Your task to perform on an android device: What's the weather going to be tomorrow? Image 0: 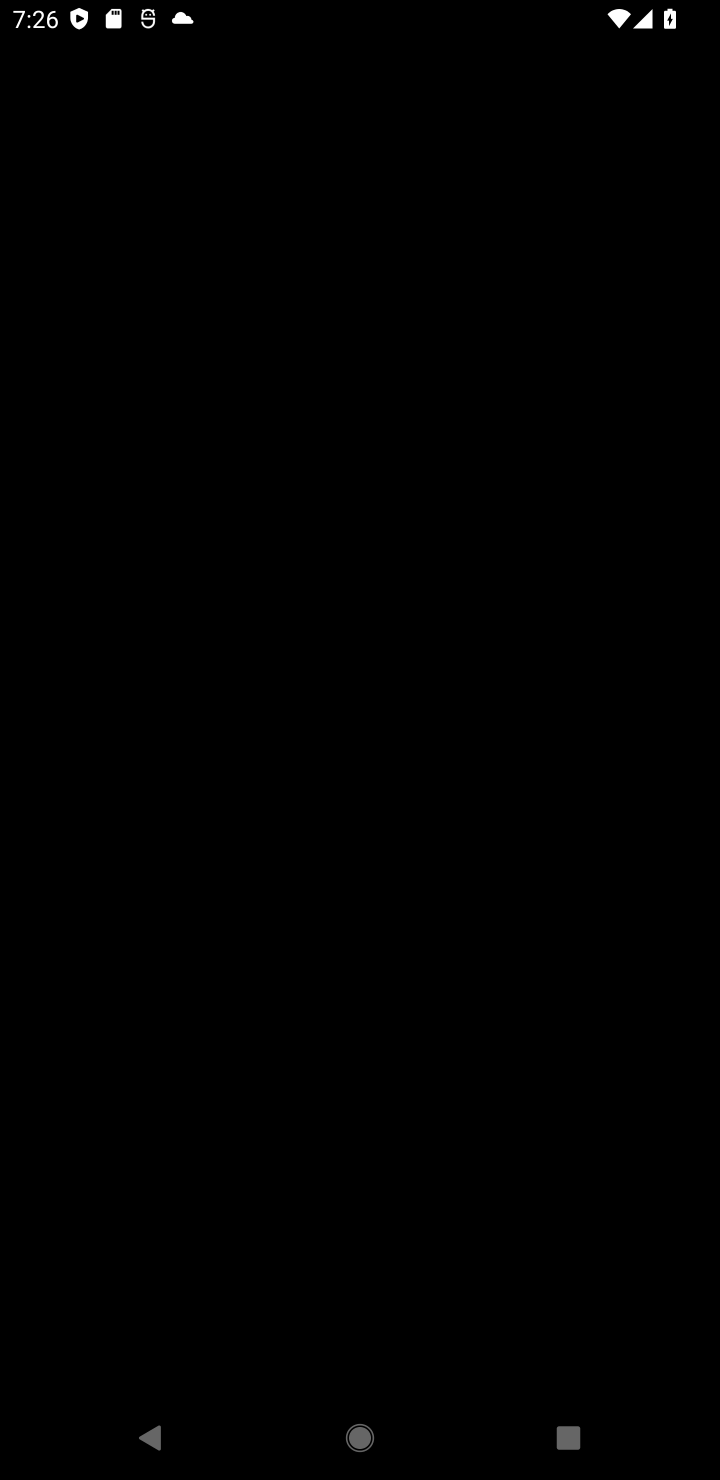
Step 0: press home button
Your task to perform on an android device: What's the weather going to be tomorrow? Image 1: 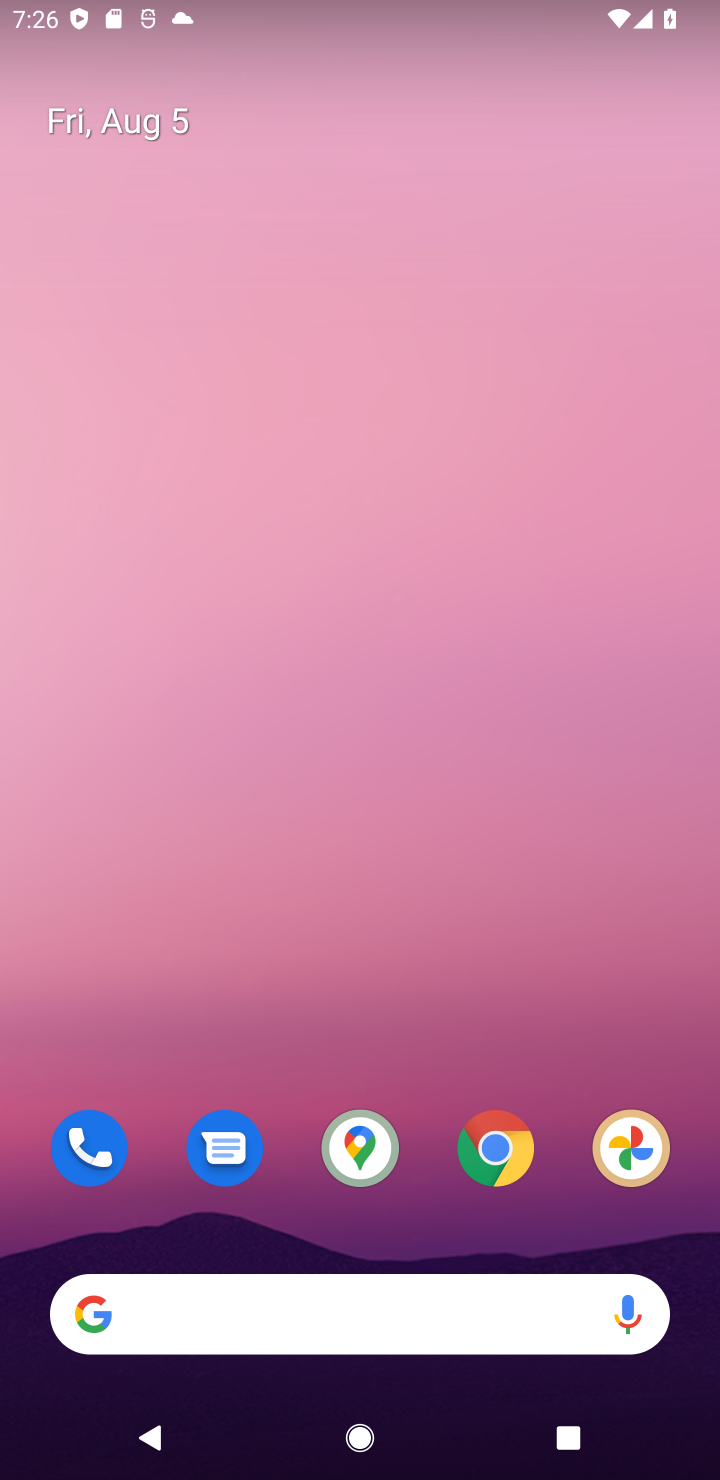
Step 1: drag from (290, 987) to (340, 251)
Your task to perform on an android device: What's the weather going to be tomorrow? Image 2: 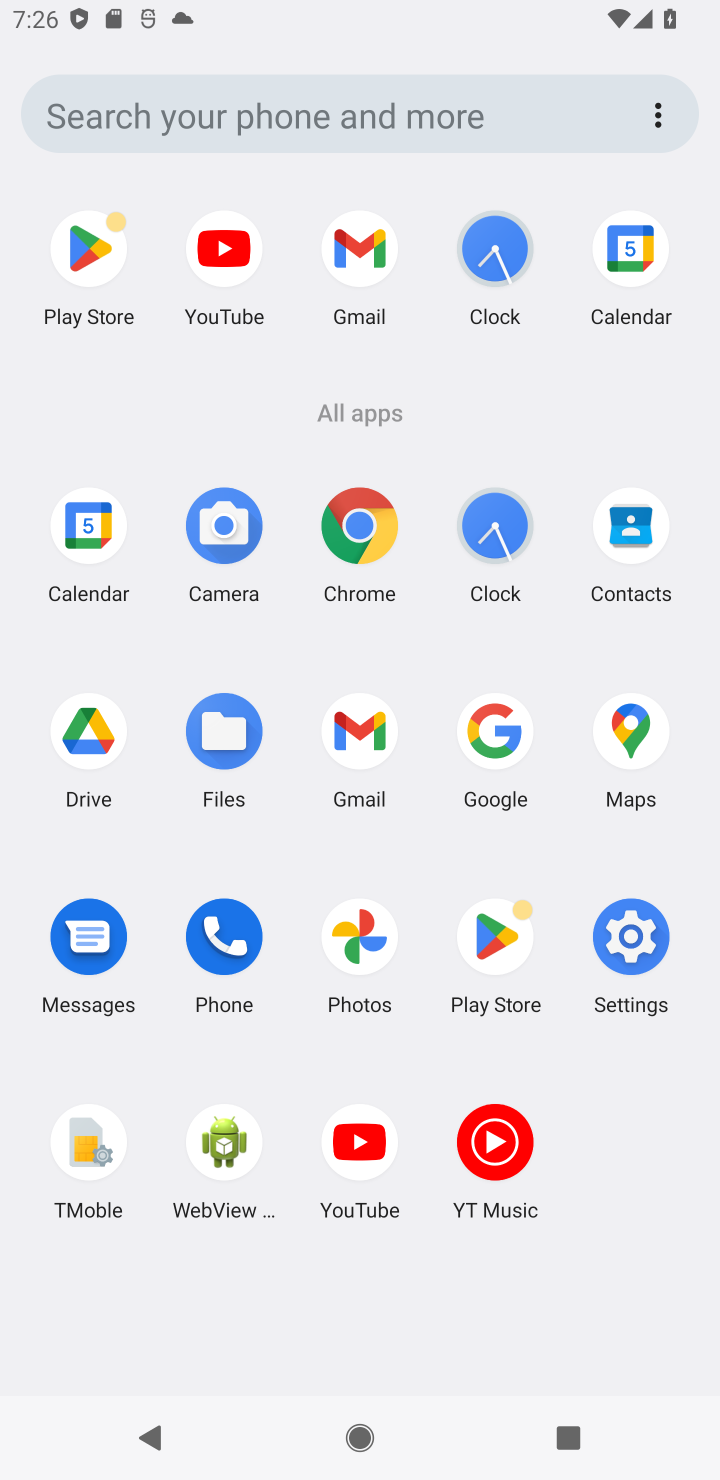
Step 2: click (229, 141)
Your task to perform on an android device: What's the weather going to be tomorrow? Image 3: 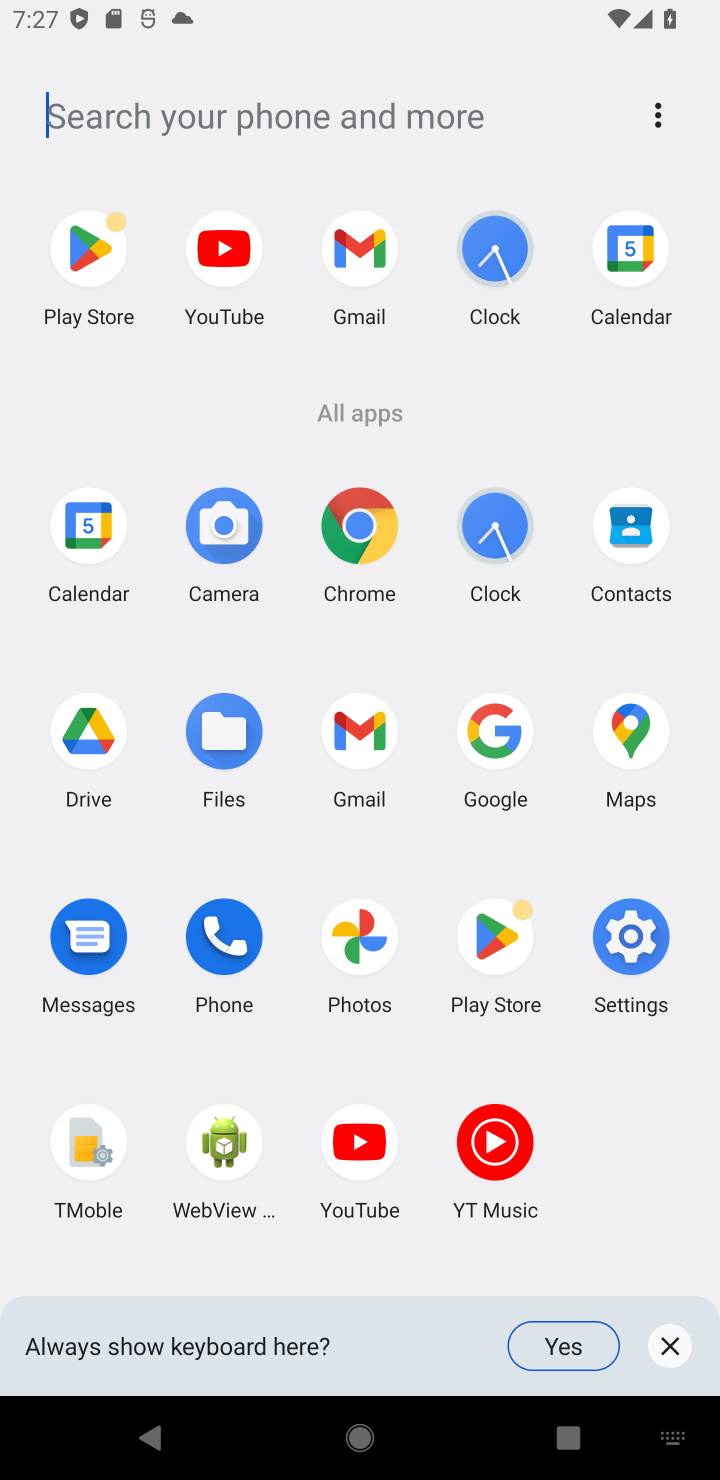
Step 3: type "weather"
Your task to perform on an android device: What's the weather going to be tomorrow? Image 4: 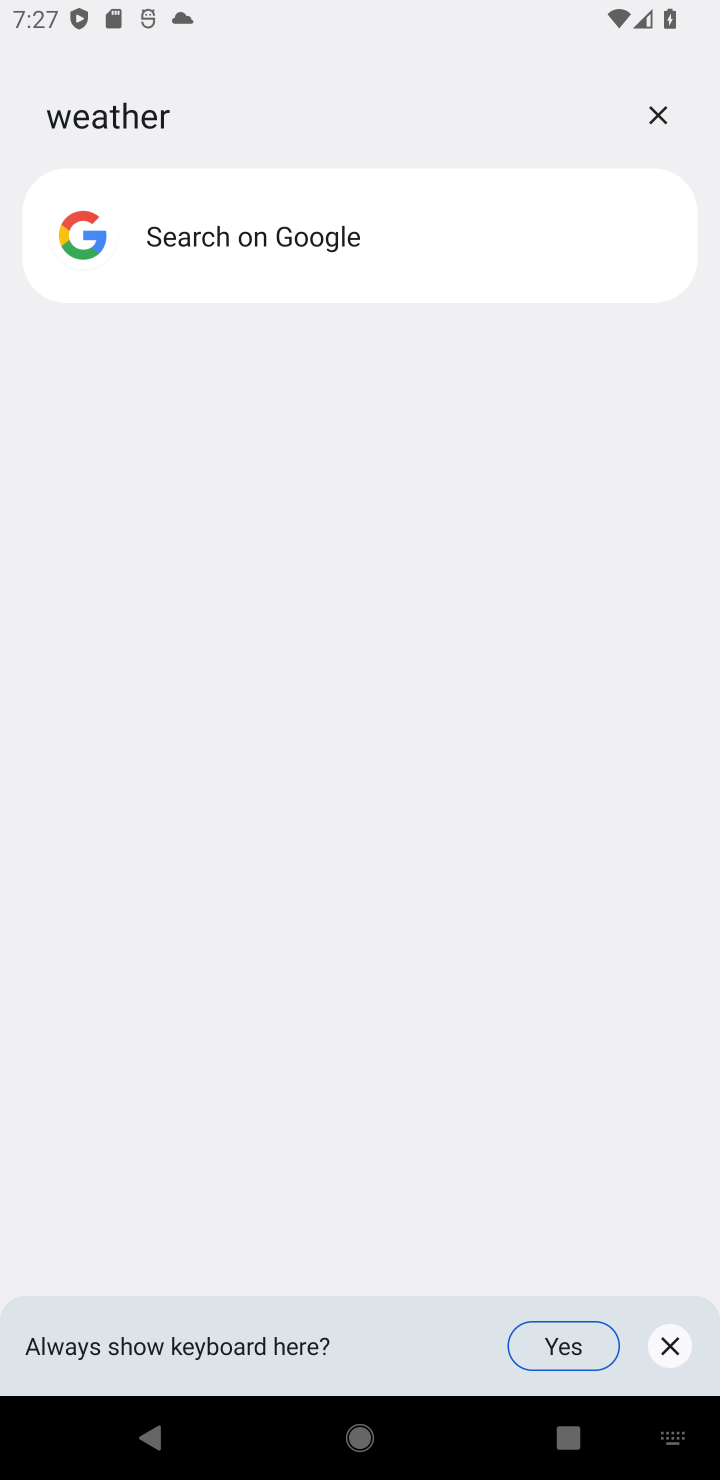
Step 4: task complete